Your task to perform on an android device: check data usage Image 0: 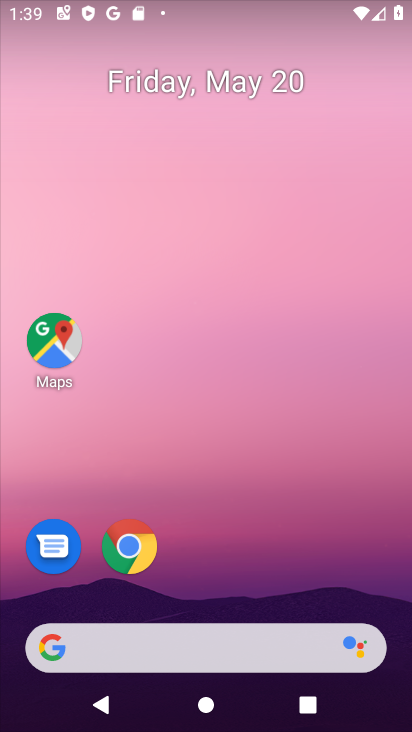
Step 0: drag from (263, 539) to (241, 83)
Your task to perform on an android device: check data usage Image 1: 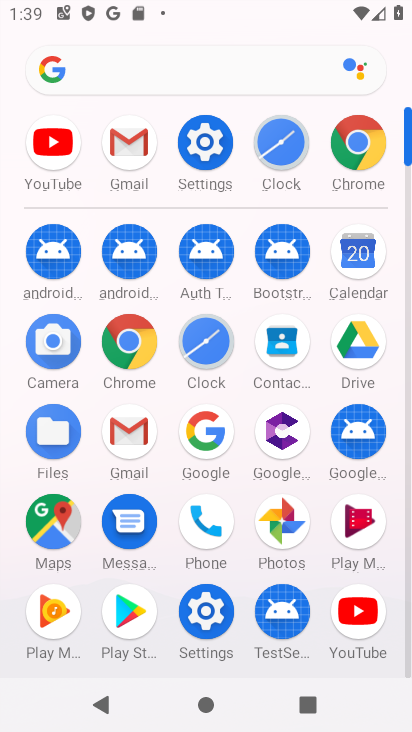
Step 1: click (214, 156)
Your task to perform on an android device: check data usage Image 2: 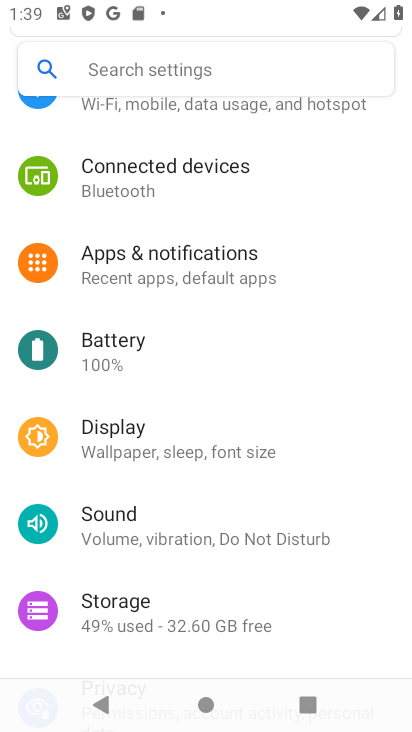
Step 2: drag from (237, 166) to (263, 499)
Your task to perform on an android device: check data usage Image 3: 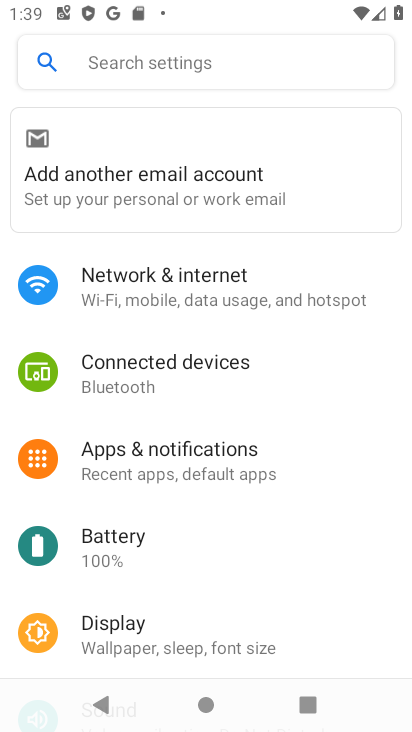
Step 3: click (231, 285)
Your task to perform on an android device: check data usage Image 4: 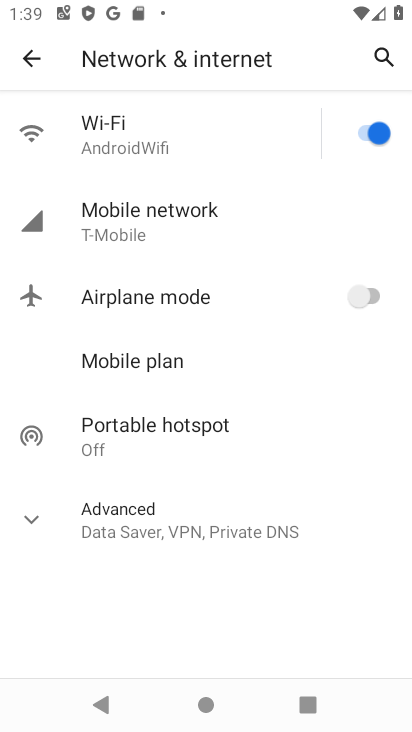
Step 4: task complete